Your task to perform on an android device: Open calendar and show me the fourth week of next month Image 0: 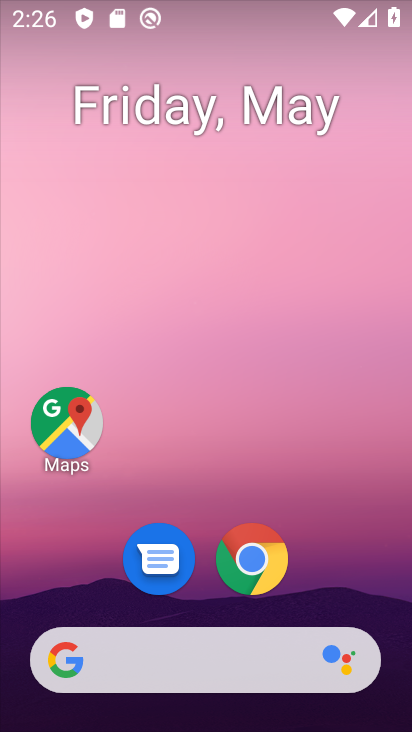
Step 0: drag from (346, 553) to (156, 44)
Your task to perform on an android device: Open calendar and show me the fourth week of next month Image 1: 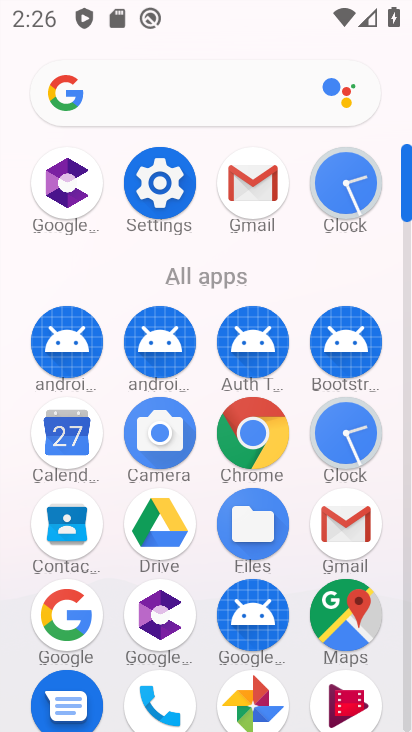
Step 1: click (61, 446)
Your task to perform on an android device: Open calendar and show me the fourth week of next month Image 2: 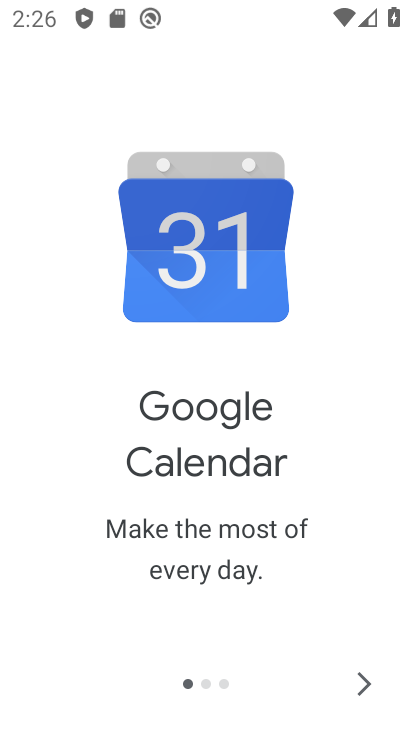
Step 2: click (369, 680)
Your task to perform on an android device: Open calendar and show me the fourth week of next month Image 3: 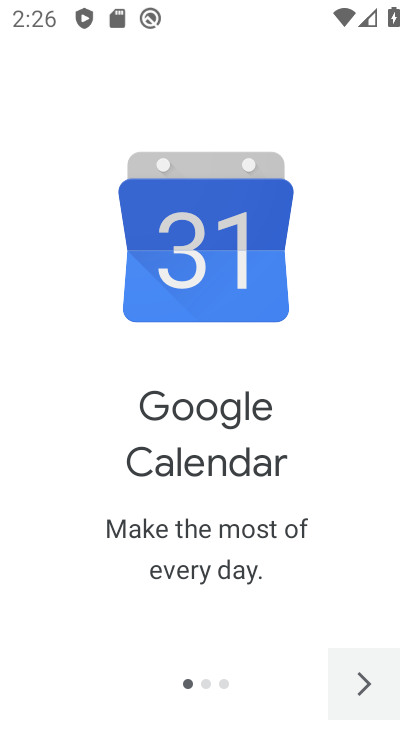
Step 3: click (369, 680)
Your task to perform on an android device: Open calendar and show me the fourth week of next month Image 4: 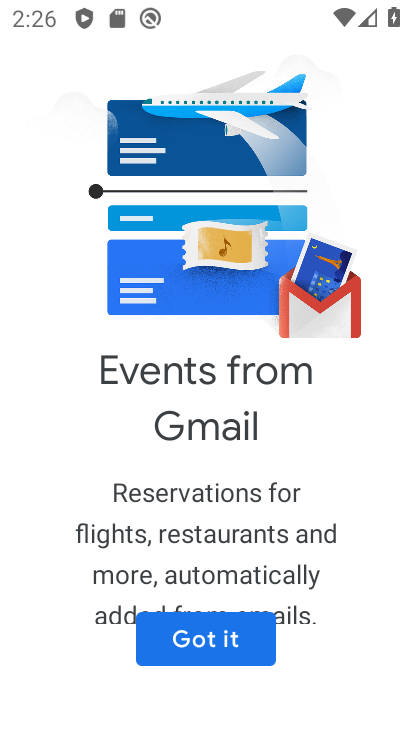
Step 4: click (231, 636)
Your task to perform on an android device: Open calendar and show me the fourth week of next month Image 5: 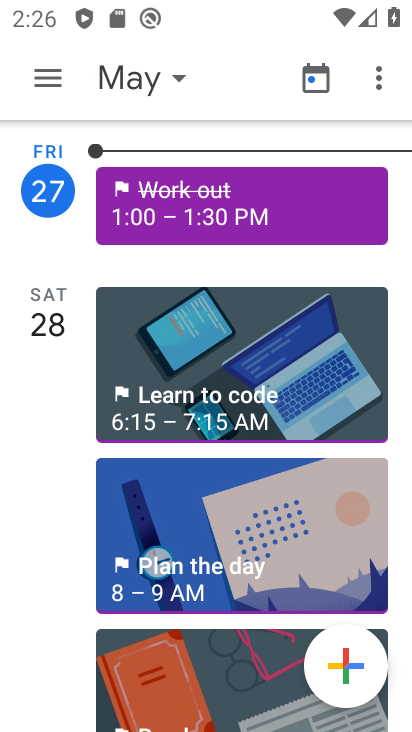
Step 5: click (166, 69)
Your task to perform on an android device: Open calendar and show me the fourth week of next month Image 6: 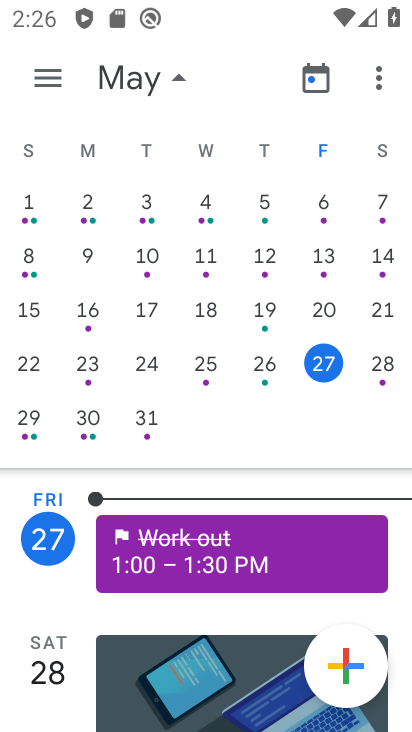
Step 6: drag from (325, 286) to (14, 187)
Your task to perform on an android device: Open calendar and show me the fourth week of next month Image 7: 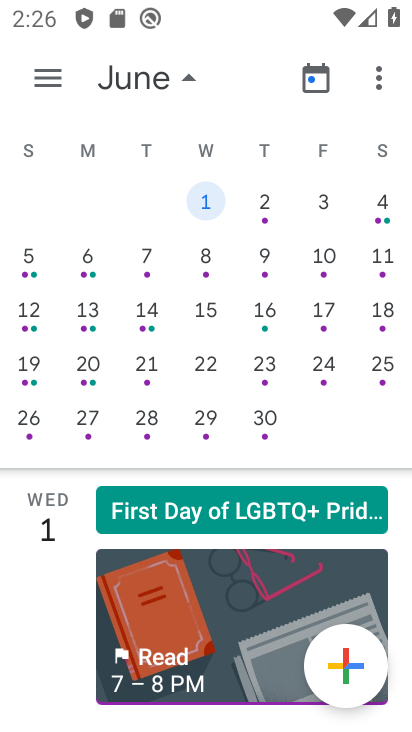
Step 7: click (35, 365)
Your task to perform on an android device: Open calendar and show me the fourth week of next month Image 8: 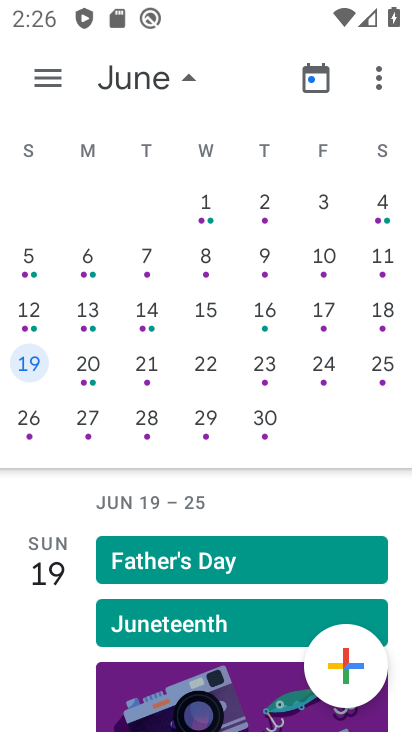
Step 8: task complete